Your task to perform on an android device: open app "NewsBreak: Local News & Alerts" (install if not already installed) and go to login screen Image 0: 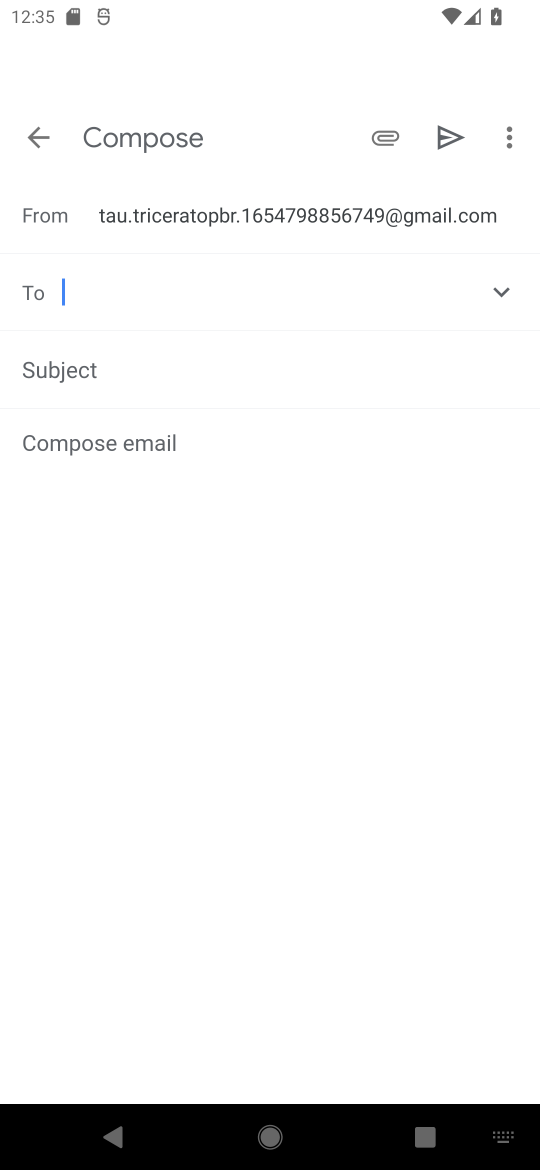
Step 0: press back button
Your task to perform on an android device: open app "NewsBreak: Local News & Alerts" (install if not already installed) and go to login screen Image 1: 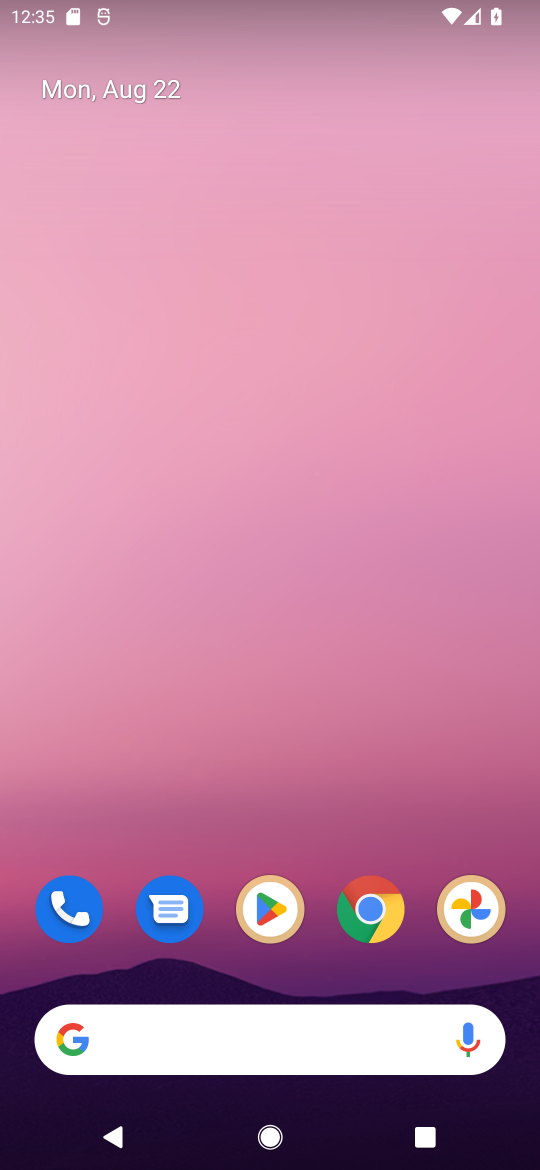
Step 1: click (262, 904)
Your task to perform on an android device: open app "NewsBreak: Local News & Alerts" (install if not already installed) and go to login screen Image 2: 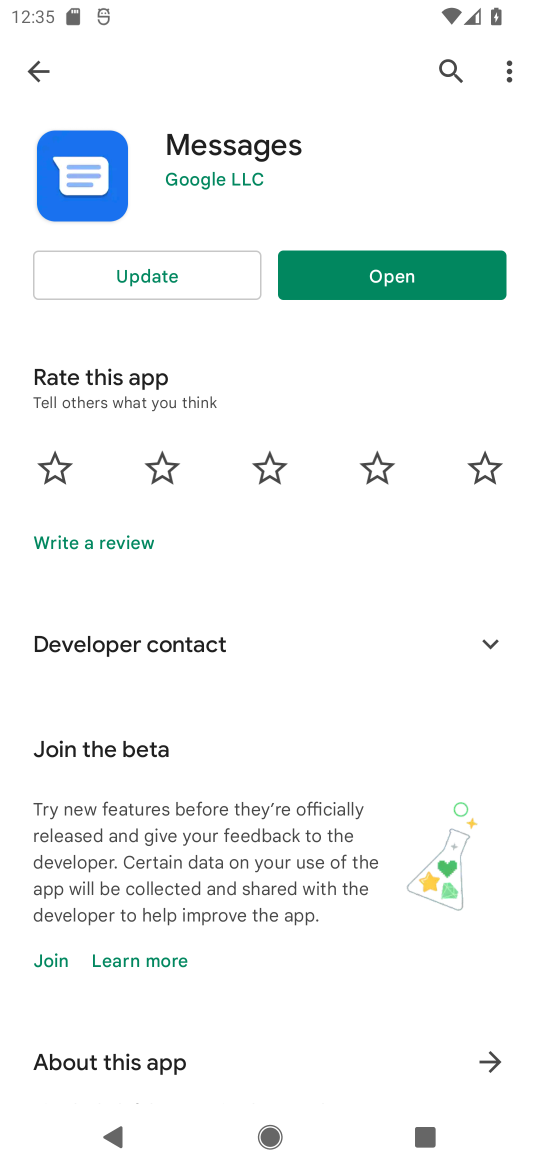
Step 2: click (447, 68)
Your task to perform on an android device: open app "NewsBreak: Local News & Alerts" (install if not already installed) and go to login screen Image 3: 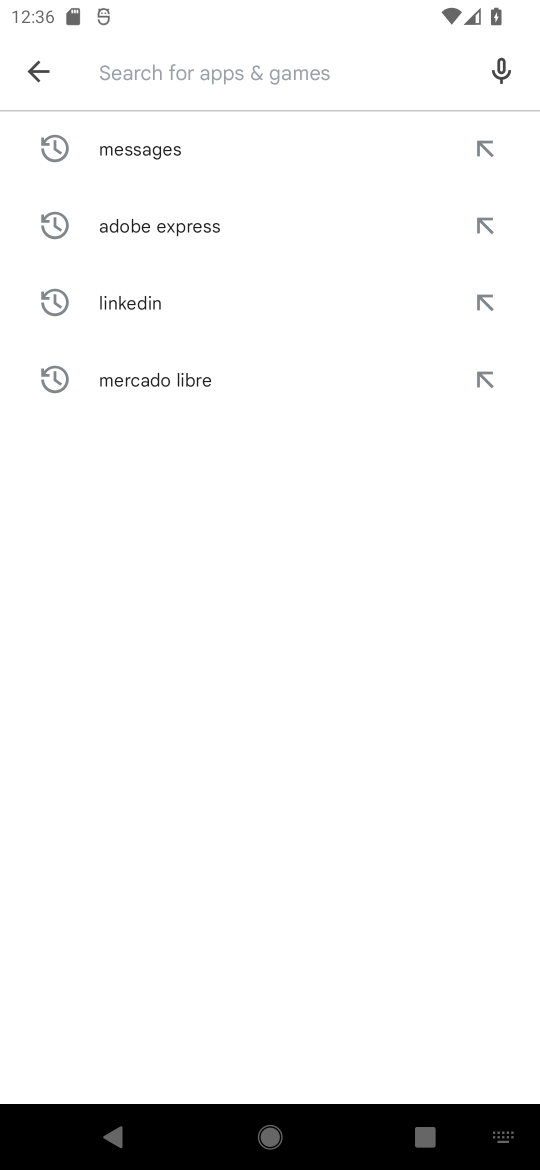
Step 3: click (262, 81)
Your task to perform on an android device: open app "NewsBreak: Local News & Alerts" (install if not already installed) and go to login screen Image 4: 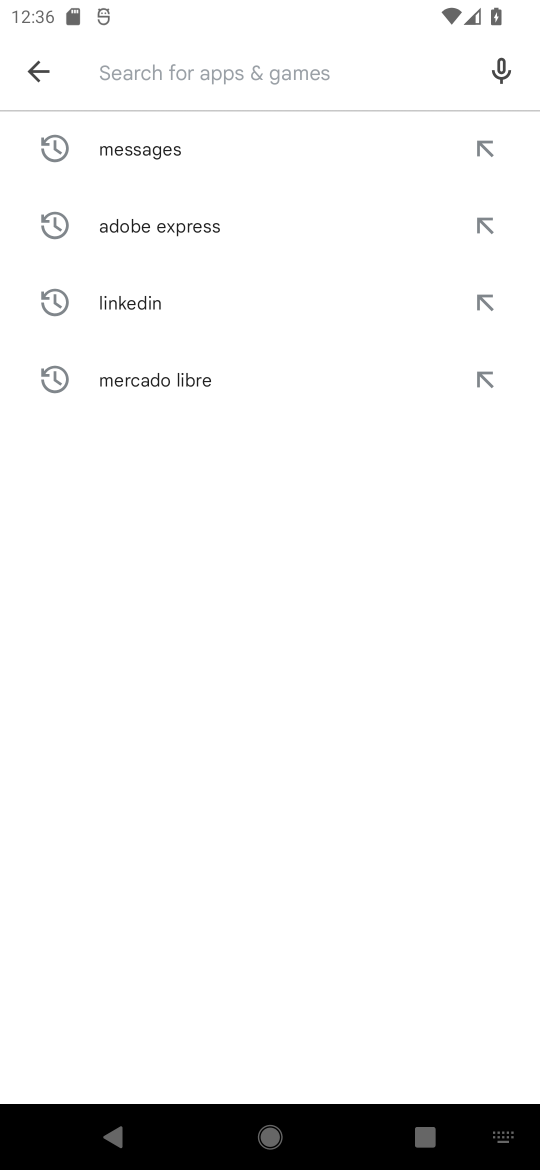
Step 4: click (140, 48)
Your task to perform on an android device: open app "NewsBreak: Local News & Alerts" (install if not already installed) and go to login screen Image 5: 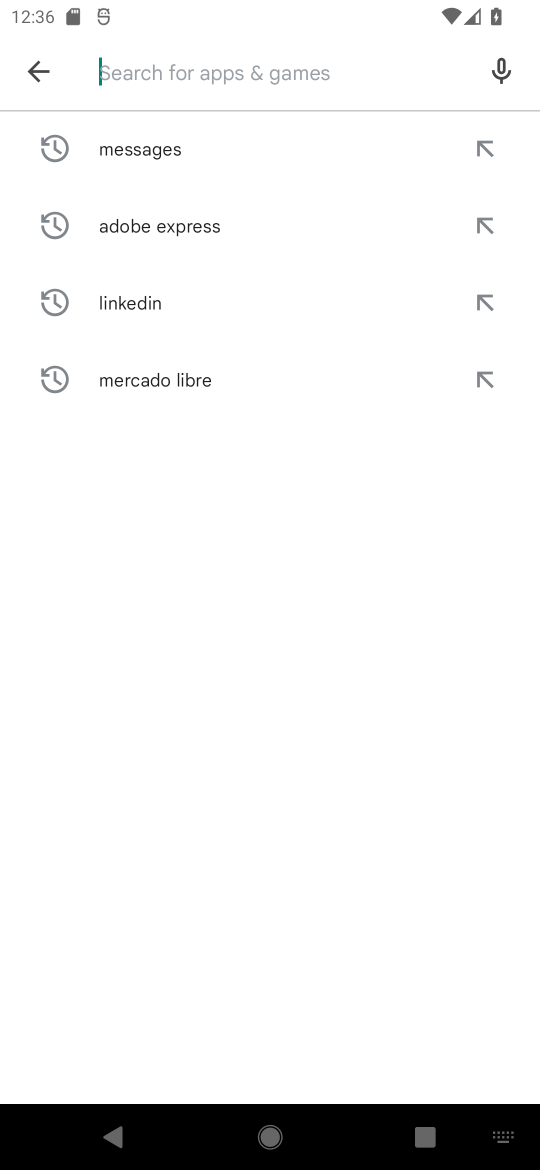
Step 5: type "NewsBreak: Local News & Alerts"
Your task to perform on an android device: open app "NewsBreak: Local News & Alerts" (install if not already installed) and go to login screen Image 6: 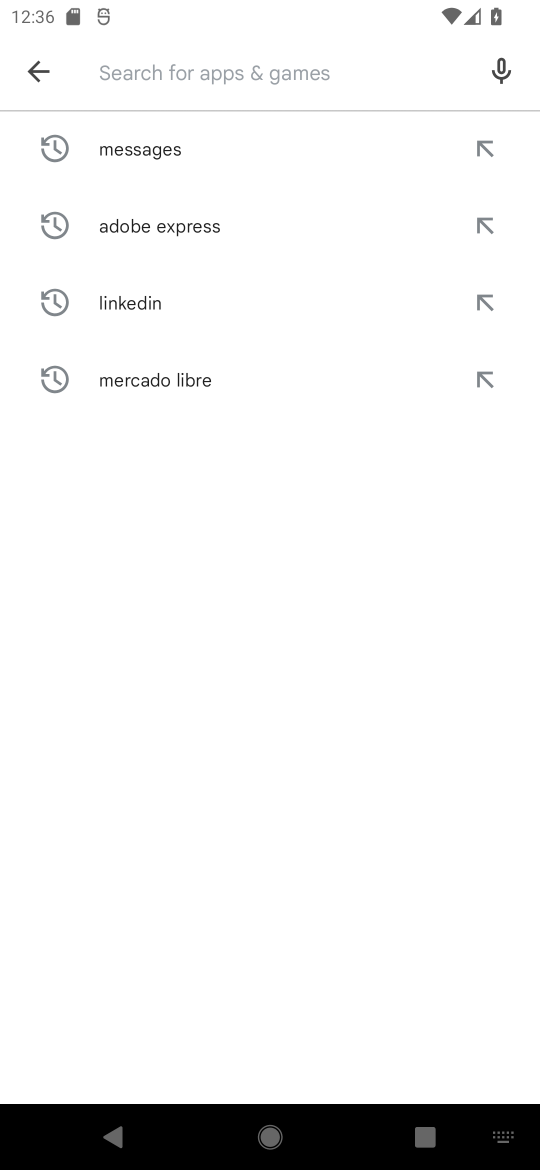
Step 6: click (336, 707)
Your task to perform on an android device: open app "NewsBreak: Local News & Alerts" (install if not already installed) and go to login screen Image 7: 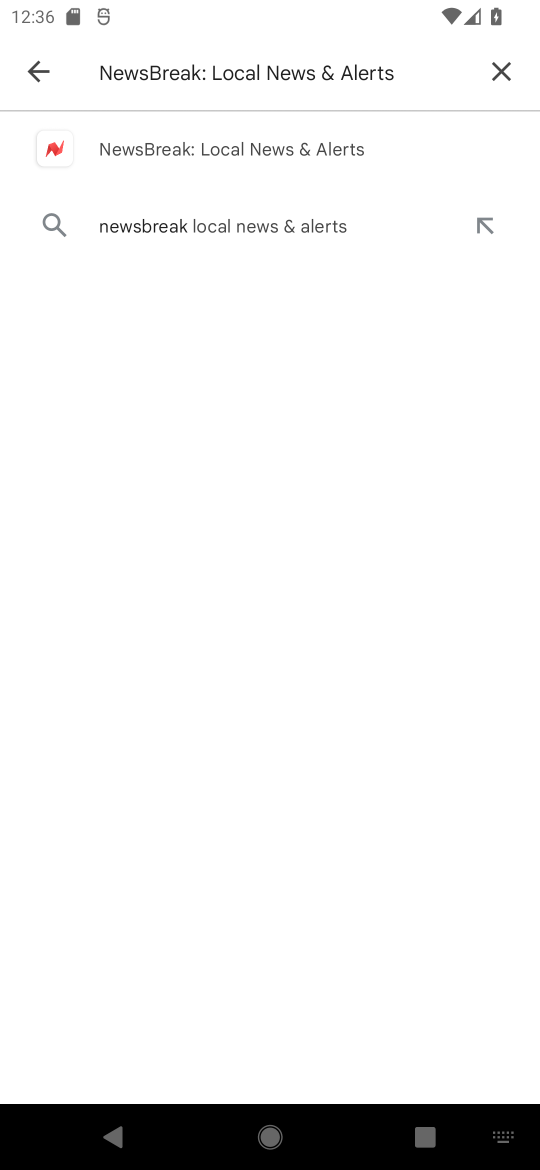
Step 7: click (281, 142)
Your task to perform on an android device: open app "NewsBreak: Local News & Alerts" (install if not already installed) and go to login screen Image 8: 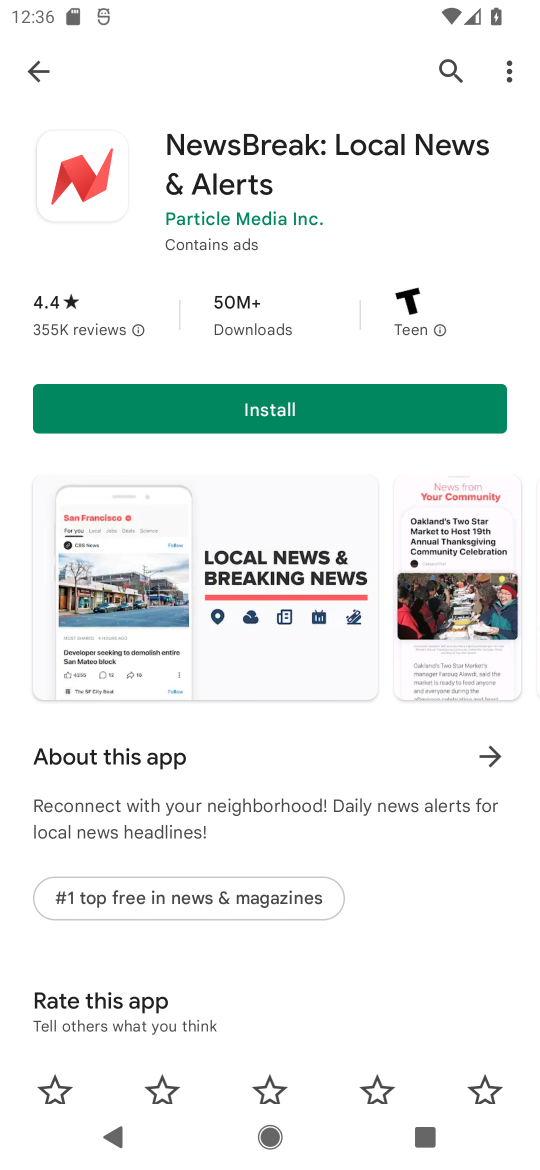
Step 8: click (266, 410)
Your task to perform on an android device: open app "NewsBreak: Local News & Alerts" (install if not already installed) and go to login screen Image 9: 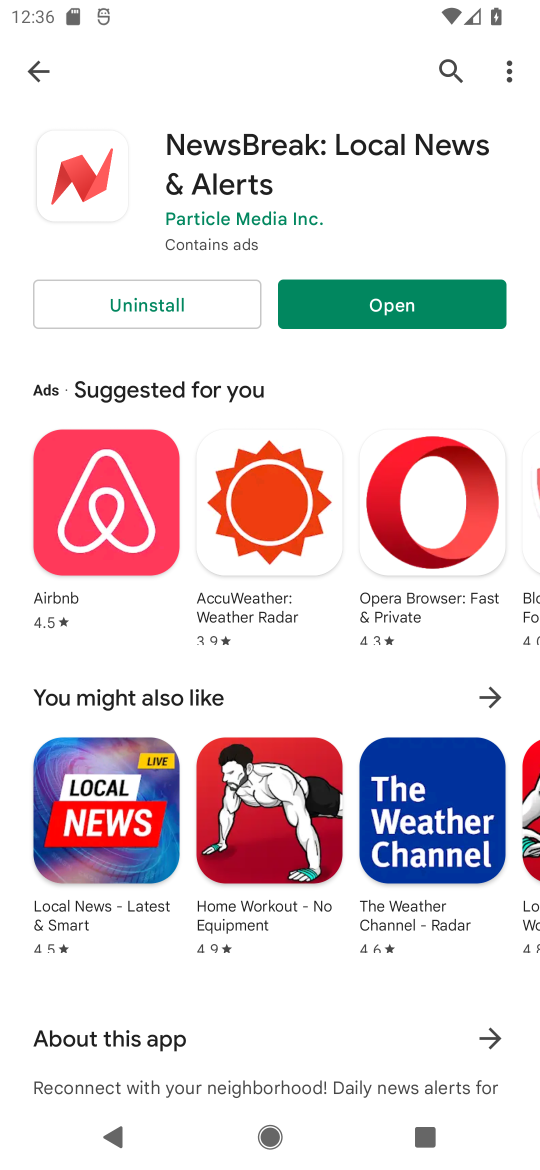
Step 9: click (385, 296)
Your task to perform on an android device: open app "NewsBreak: Local News & Alerts" (install if not already installed) and go to login screen Image 10: 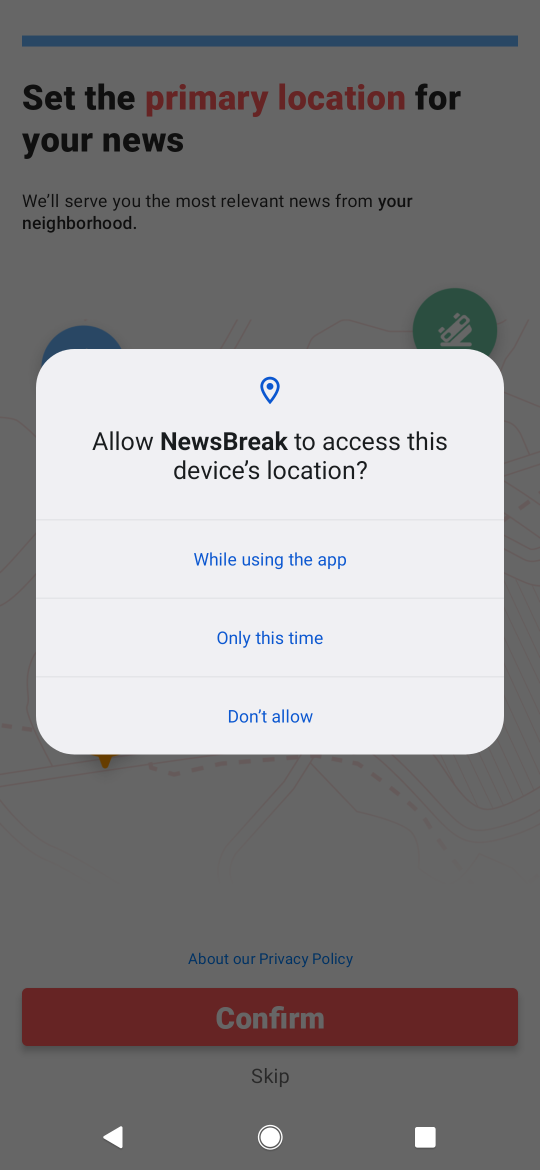
Step 10: click (284, 549)
Your task to perform on an android device: open app "NewsBreak: Local News & Alerts" (install if not already installed) and go to login screen Image 11: 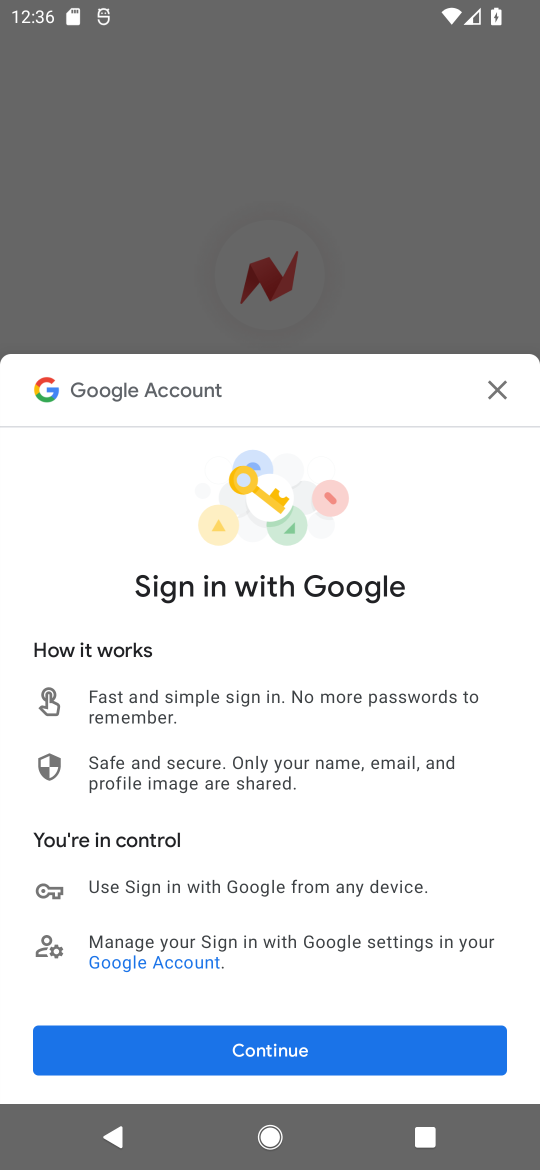
Step 11: click (487, 387)
Your task to perform on an android device: open app "NewsBreak: Local News & Alerts" (install if not already installed) and go to login screen Image 12: 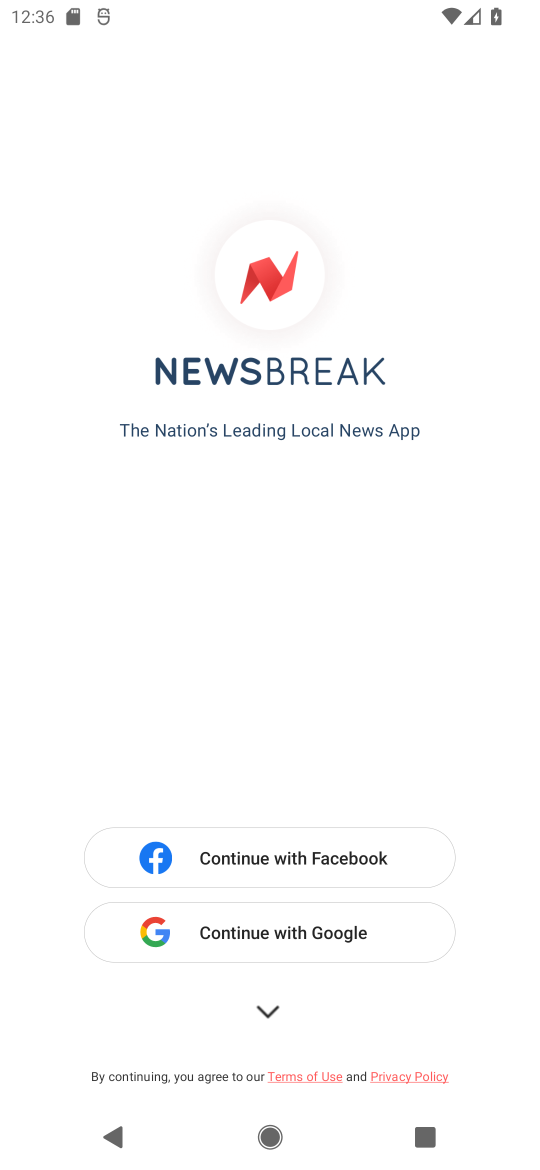
Step 12: task complete